Your task to perform on an android device: stop showing notifications on the lock screen Image 0: 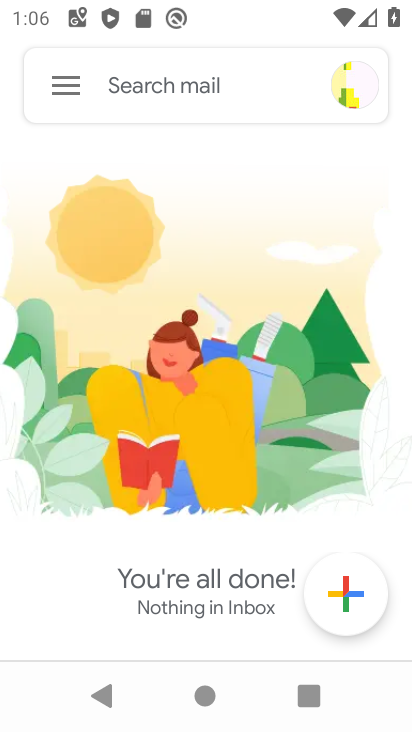
Step 0: press home button
Your task to perform on an android device: stop showing notifications on the lock screen Image 1: 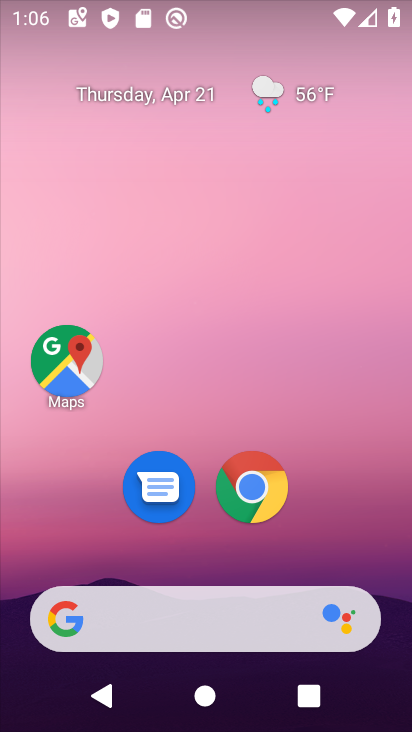
Step 1: drag from (395, 592) to (330, 24)
Your task to perform on an android device: stop showing notifications on the lock screen Image 2: 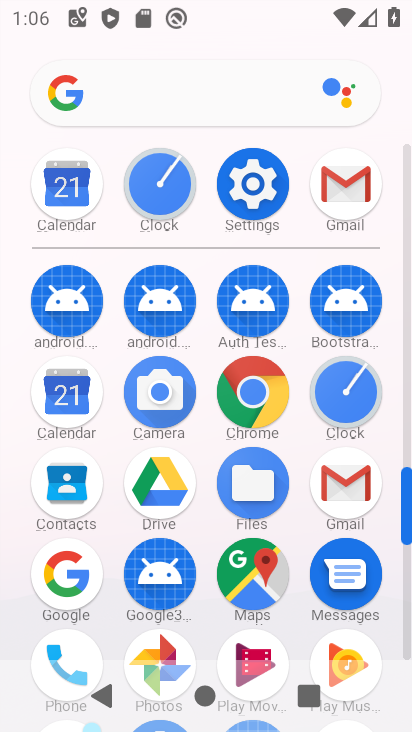
Step 2: click (250, 189)
Your task to perform on an android device: stop showing notifications on the lock screen Image 3: 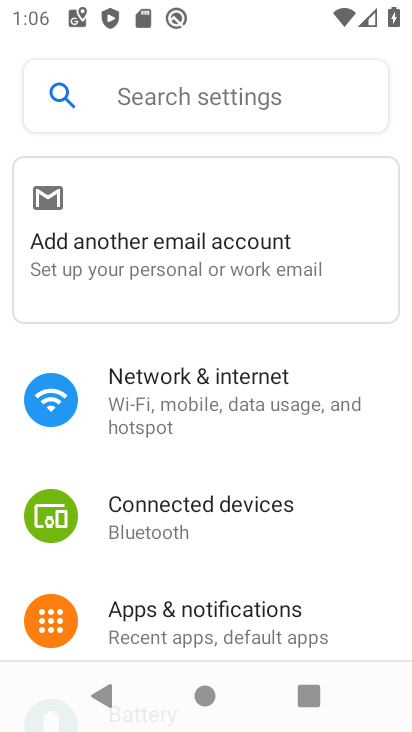
Step 3: click (225, 622)
Your task to perform on an android device: stop showing notifications on the lock screen Image 4: 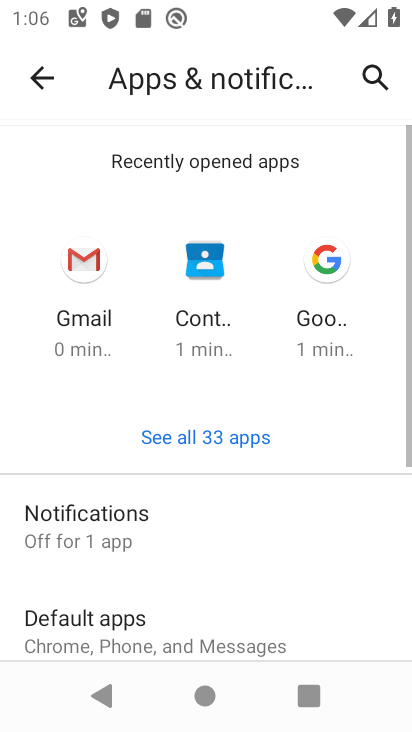
Step 4: click (68, 537)
Your task to perform on an android device: stop showing notifications on the lock screen Image 5: 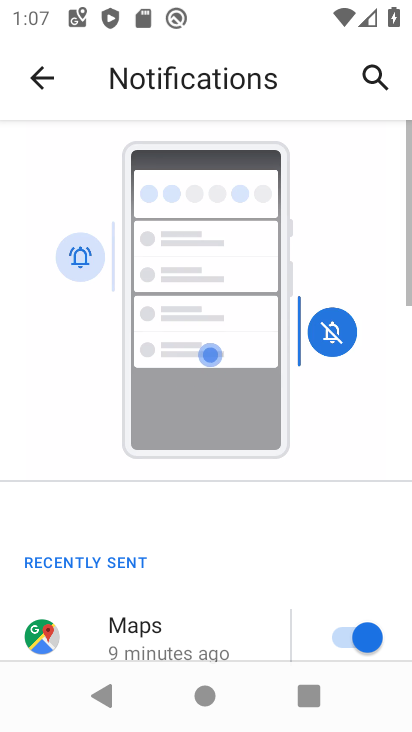
Step 5: drag from (233, 552) to (202, 27)
Your task to perform on an android device: stop showing notifications on the lock screen Image 6: 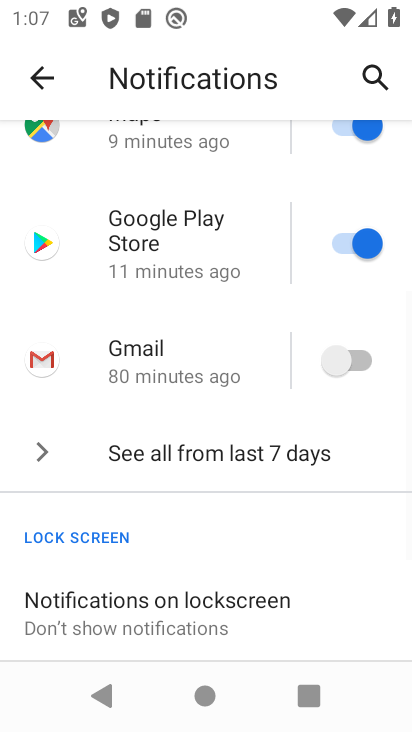
Step 6: drag from (174, 494) to (162, 80)
Your task to perform on an android device: stop showing notifications on the lock screen Image 7: 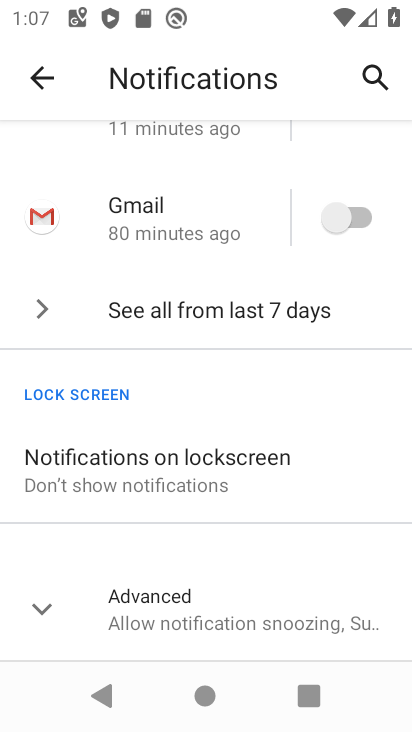
Step 7: click (100, 476)
Your task to perform on an android device: stop showing notifications on the lock screen Image 8: 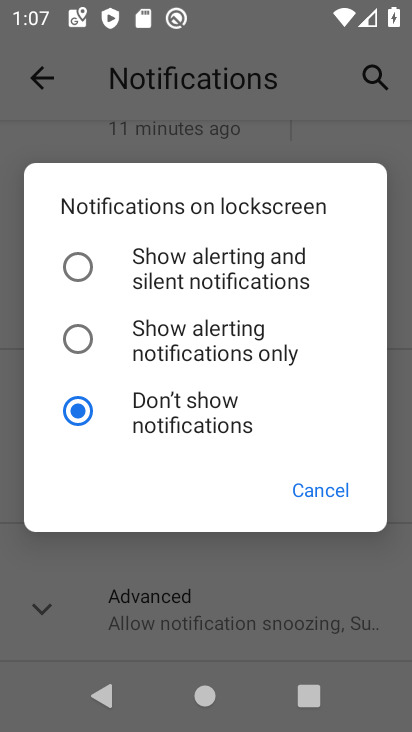
Step 8: task complete